Your task to perform on an android device: Open CNN.com Image 0: 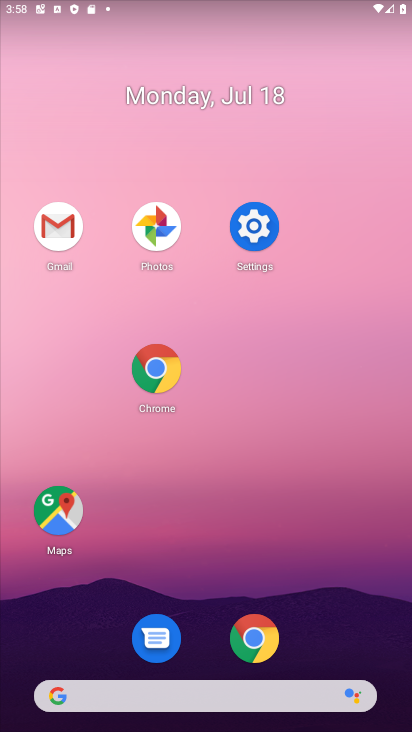
Step 0: click (272, 635)
Your task to perform on an android device: Open CNN.com Image 1: 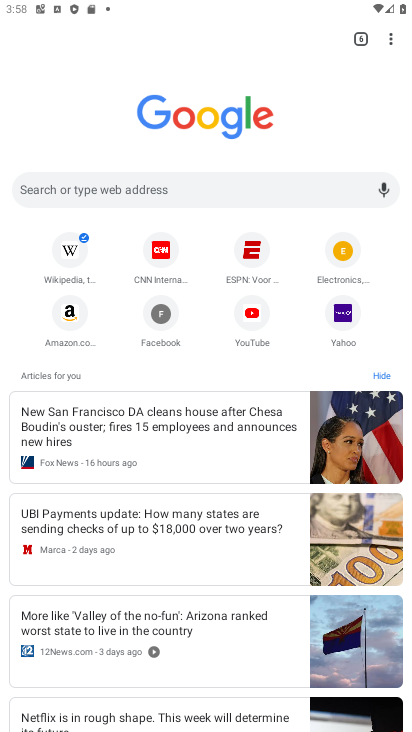
Step 1: click (217, 183)
Your task to perform on an android device: Open CNN.com Image 2: 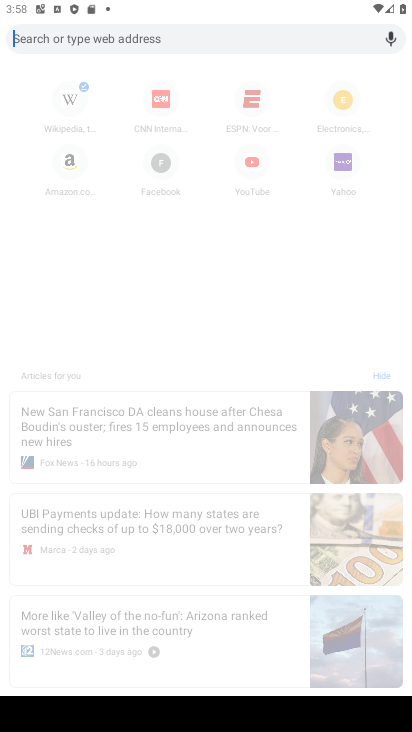
Step 2: type "cnn"
Your task to perform on an android device: Open CNN.com Image 3: 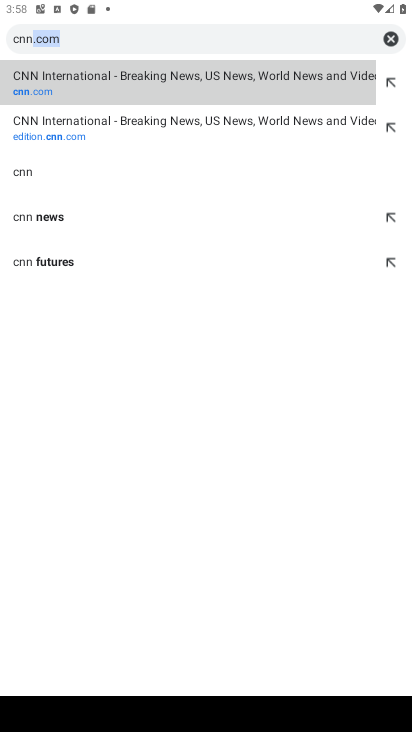
Step 3: click (190, 90)
Your task to perform on an android device: Open CNN.com Image 4: 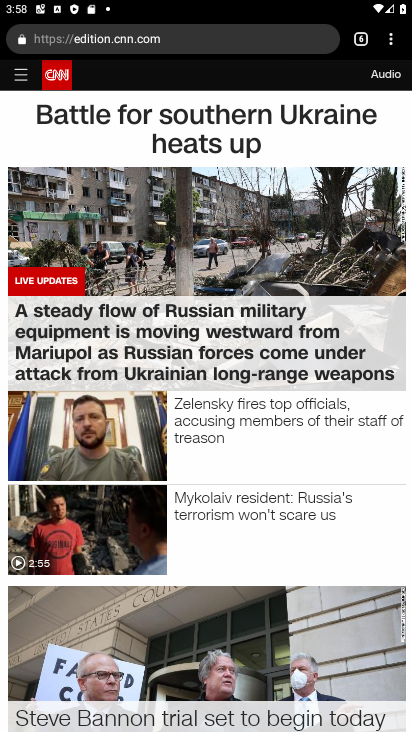
Step 4: task complete